Your task to perform on an android device: Open calendar and show me the first week of next month Image 0: 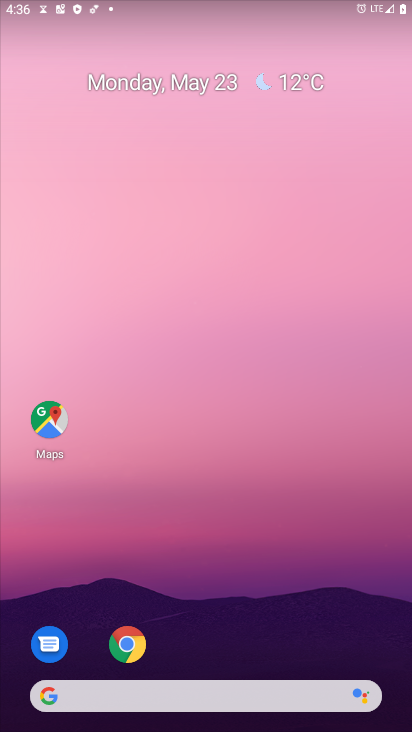
Step 0: drag from (198, 673) to (171, 350)
Your task to perform on an android device: Open calendar and show me the first week of next month Image 1: 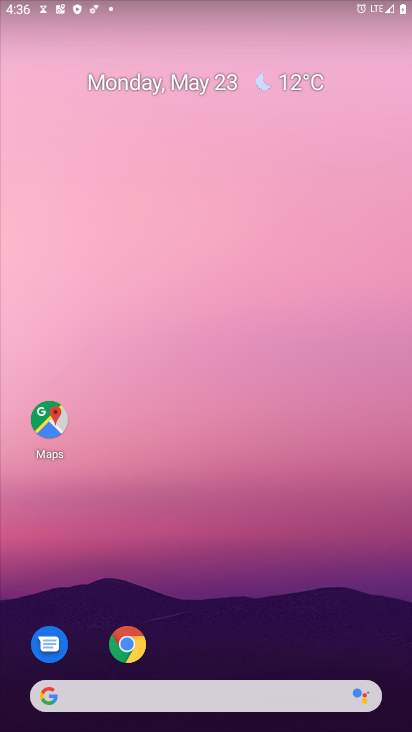
Step 1: drag from (246, 674) to (234, 130)
Your task to perform on an android device: Open calendar and show me the first week of next month Image 2: 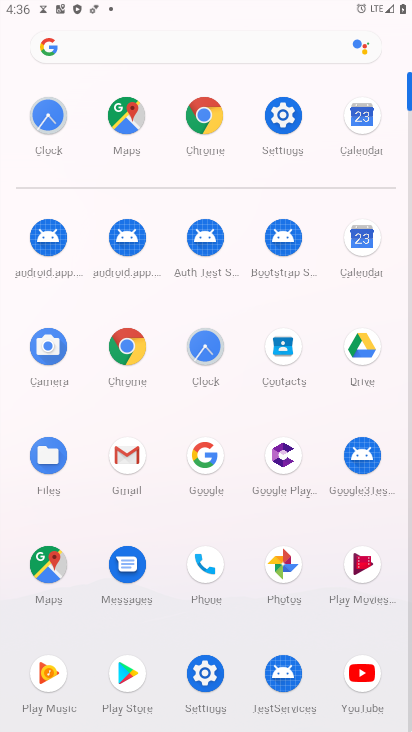
Step 2: click (352, 248)
Your task to perform on an android device: Open calendar and show me the first week of next month Image 3: 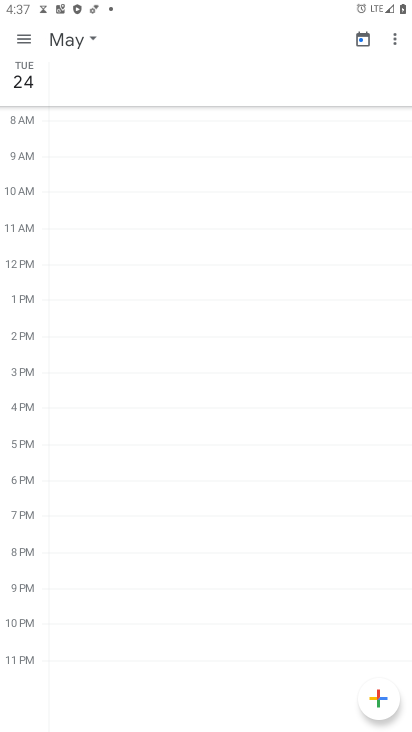
Step 3: click (23, 39)
Your task to perform on an android device: Open calendar and show me the first week of next month Image 4: 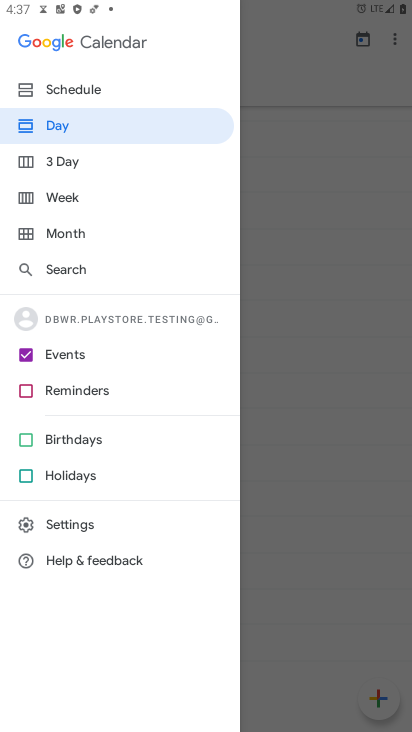
Step 4: click (55, 202)
Your task to perform on an android device: Open calendar and show me the first week of next month Image 5: 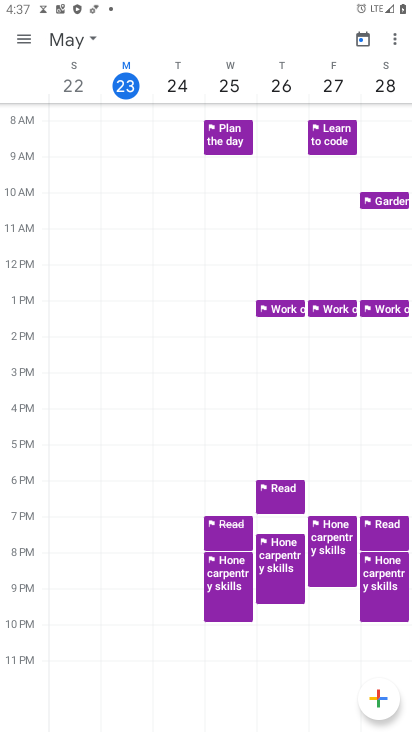
Step 5: click (78, 36)
Your task to perform on an android device: Open calendar and show me the first week of next month Image 6: 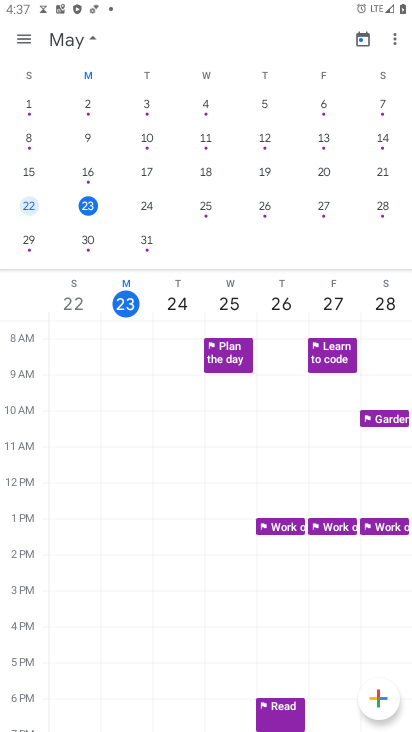
Step 6: drag from (399, 163) to (30, 191)
Your task to perform on an android device: Open calendar and show me the first week of next month Image 7: 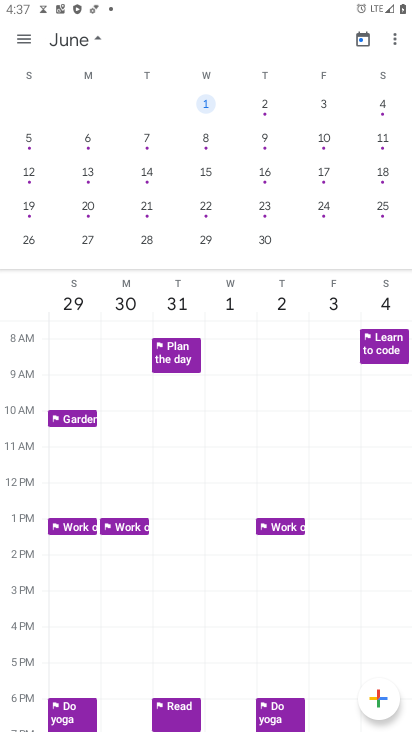
Step 7: click (206, 105)
Your task to perform on an android device: Open calendar and show me the first week of next month Image 8: 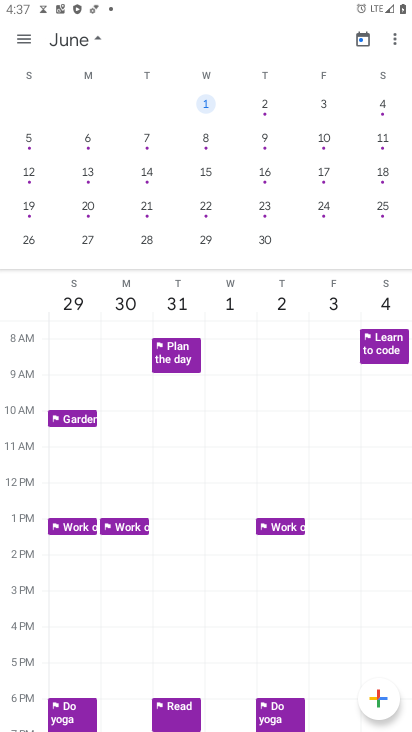
Step 8: task complete